Your task to perform on an android device: What's on my calendar today? Image 0: 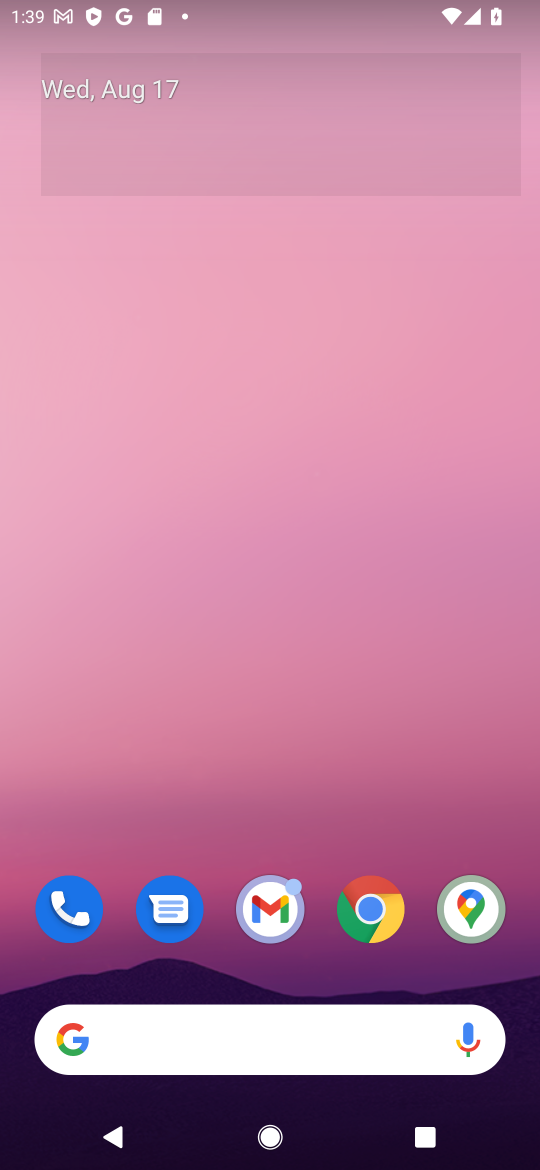
Step 0: drag from (377, 792) to (325, 238)
Your task to perform on an android device: What's on my calendar today? Image 1: 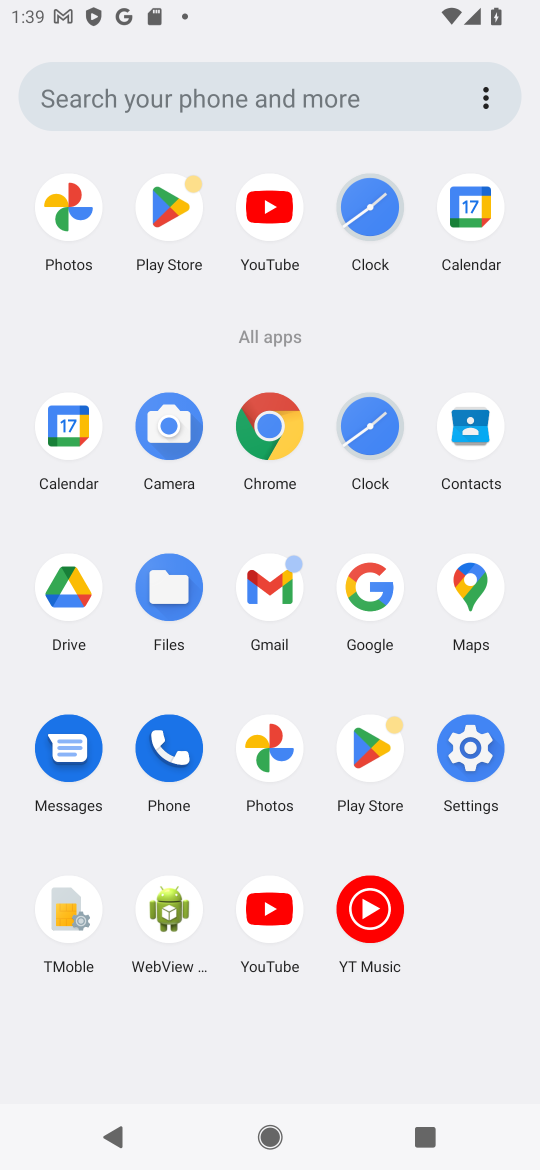
Step 1: click (65, 450)
Your task to perform on an android device: What's on my calendar today? Image 2: 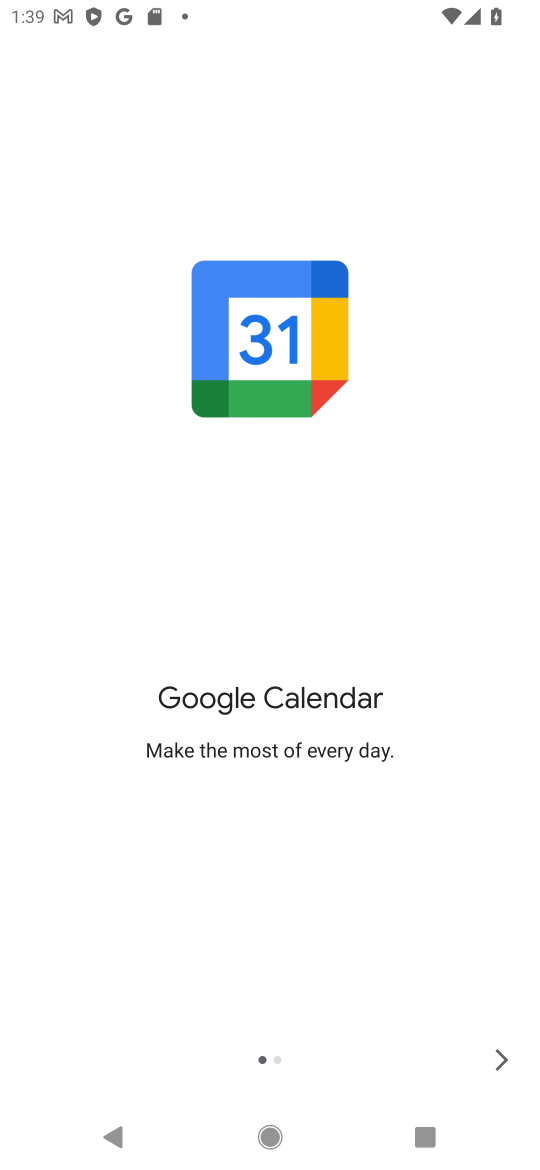
Step 2: click (510, 1062)
Your task to perform on an android device: What's on my calendar today? Image 3: 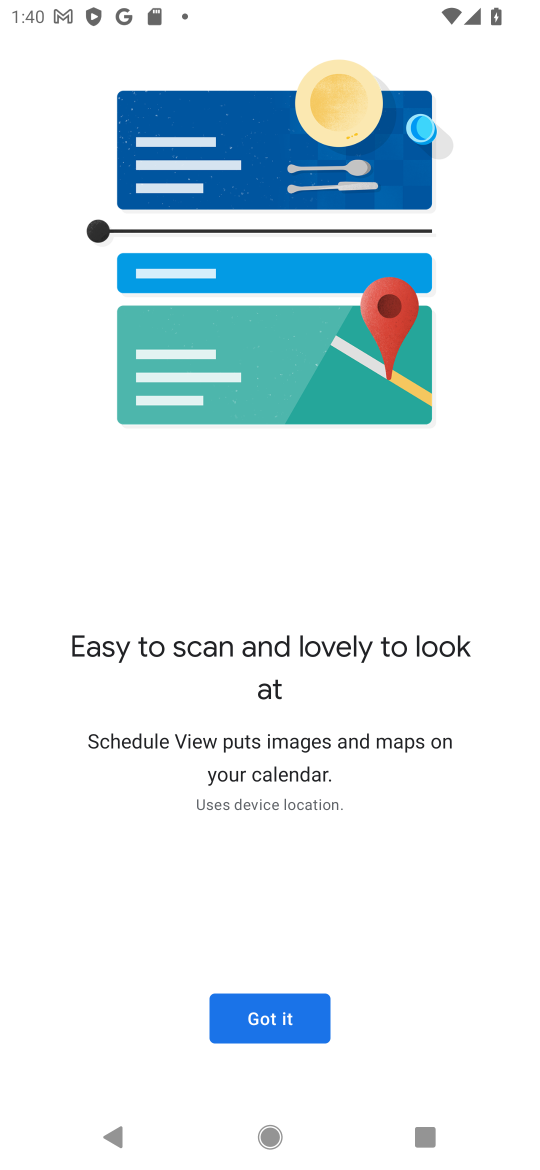
Step 3: click (294, 1024)
Your task to perform on an android device: What's on my calendar today? Image 4: 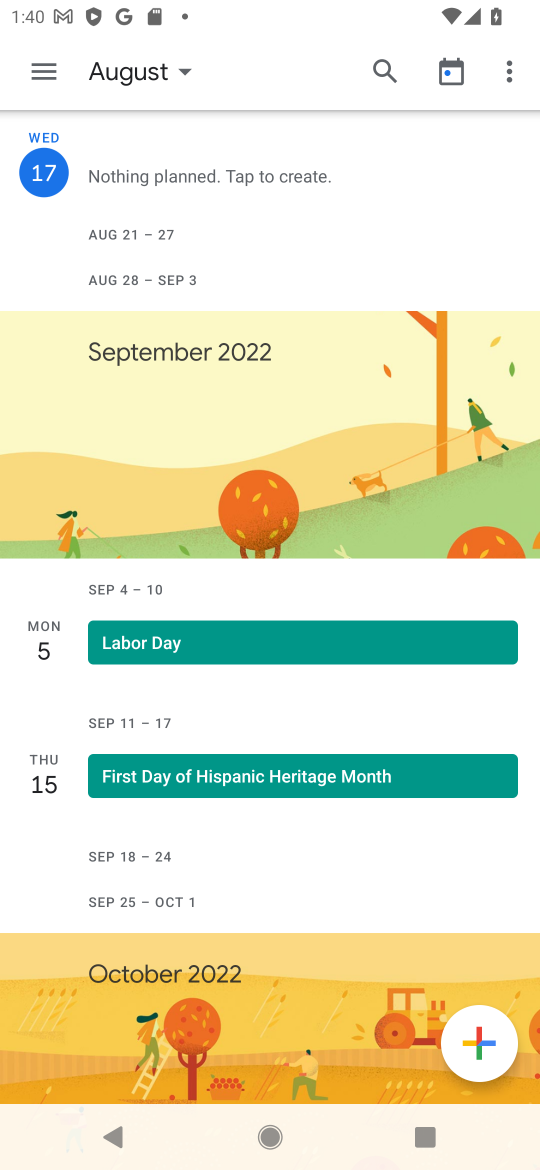
Step 4: task complete